Your task to perform on an android device: turn vacation reply on in the gmail app Image 0: 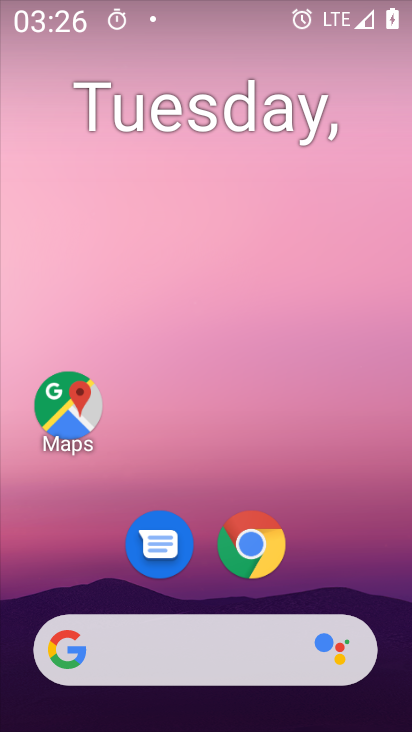
Step 0: drag from (308, 560) to (153, 55)
Your task to perform on an android device: turn vacation reply on in the gmail app Image 1: 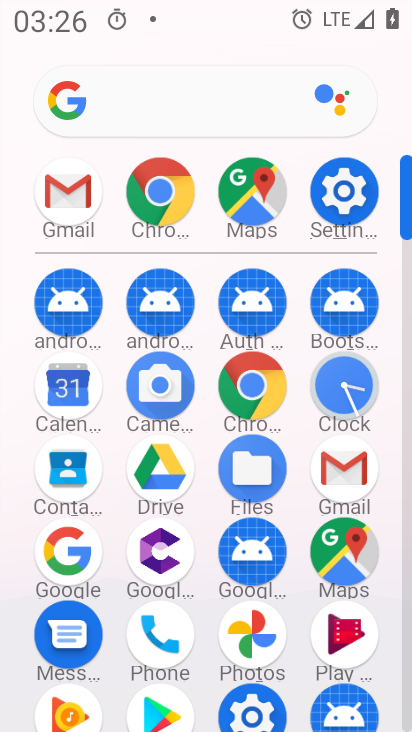
Step 1: drag from (23, 587) to (15, 277)
Your task to perform on an android device: turn vacation reply on in the gmail app Image 2: 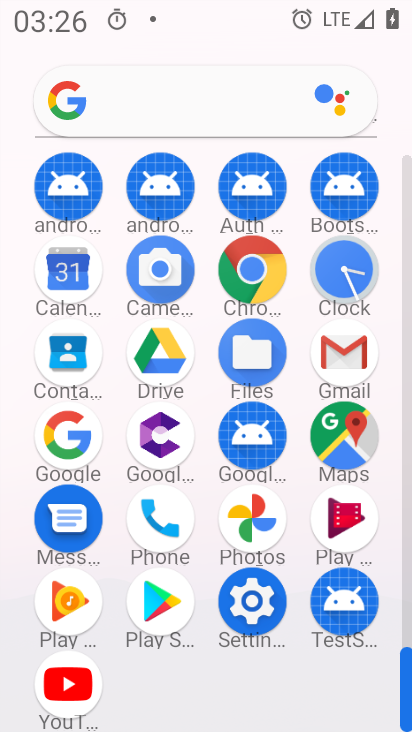
Step 2: click (341, 346)
Your task to perform on an android device: turn vacation reply on in the gmail app Image 3: 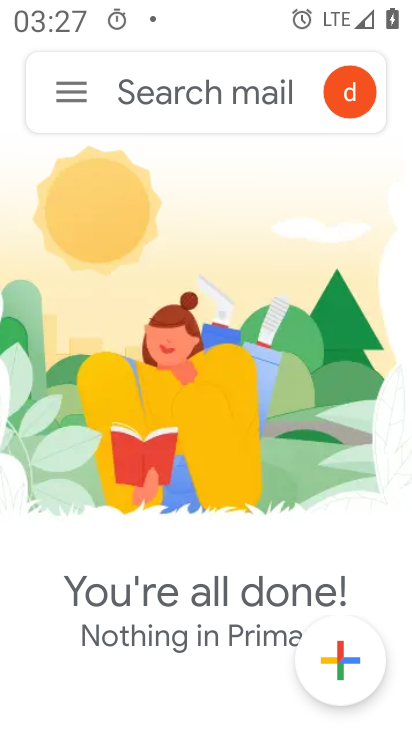
Step 3: click (70, 92)
Your task to perform on an android device: turn vacation reply on in the gmail app Image 4: 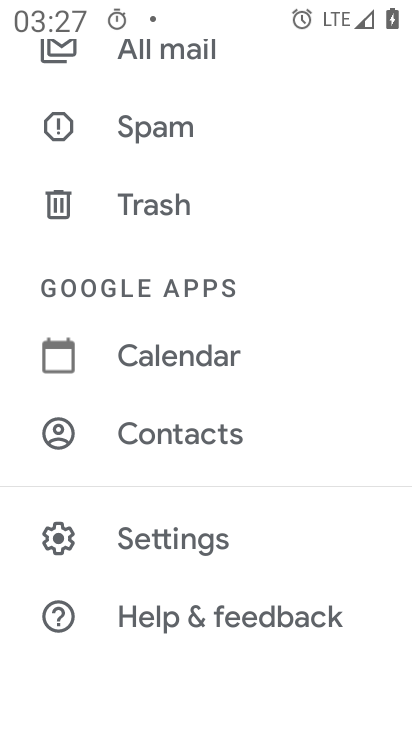
Step 4: click (211, 531)
Your task to perform on an android device: turn vacation reply on in the gmail app Image 5: 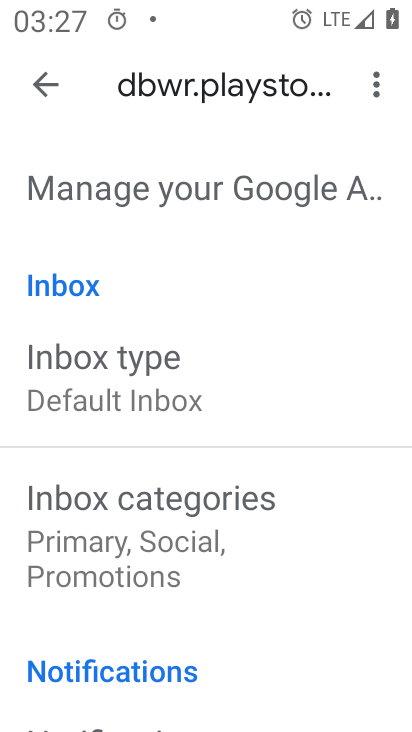
Step 5: drag from (292, 585) to (263, 191)
Your task to perform on an android device: turn vacation reply on in the gmail app Image 6: 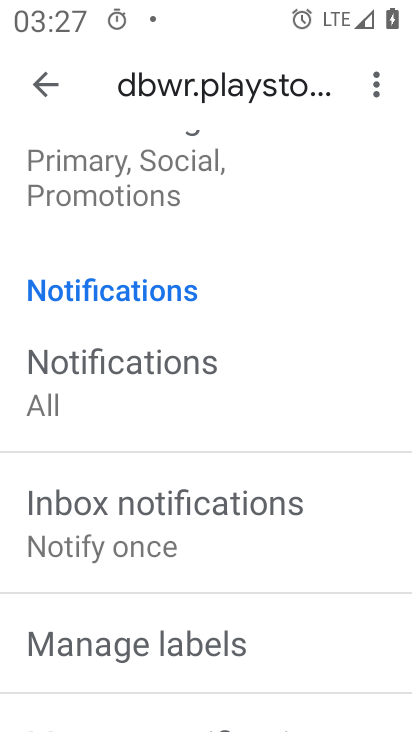
Step 6: drag from (223, 582) to (215, 182)
Your task to perform on an android device: turn vacation reply on in the gmail app Image 7: 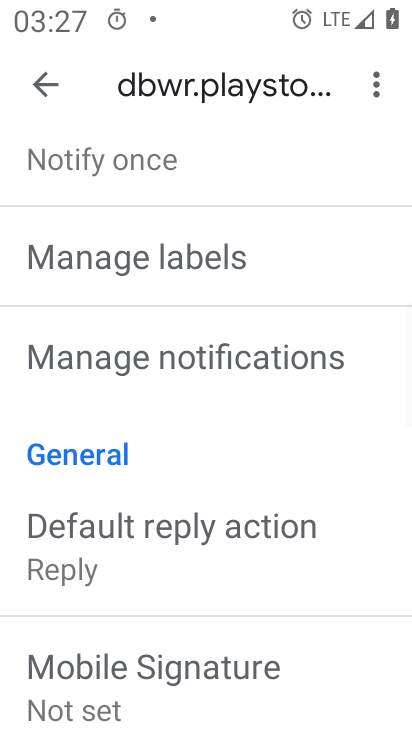
Step 7: drag from (222, 604) to (219, 172)
Your task to perform on an android device: turn vacation reply on in the gmail app Image 8: 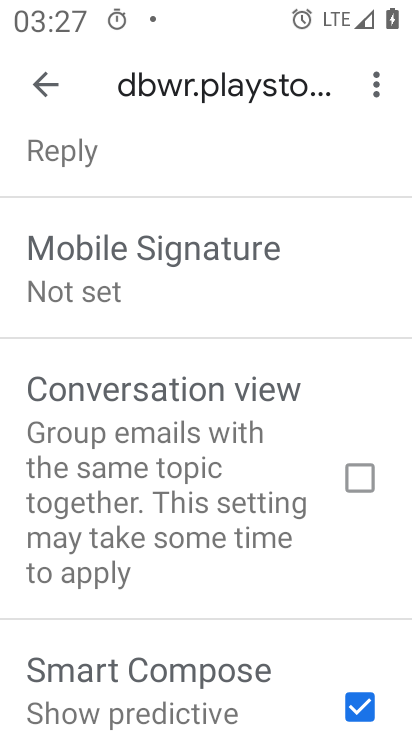
Step 8: drag from (215, 609) to (204, 211)
Your task to perform on an android device: turn vacation reply on in the gmail app Image 9: 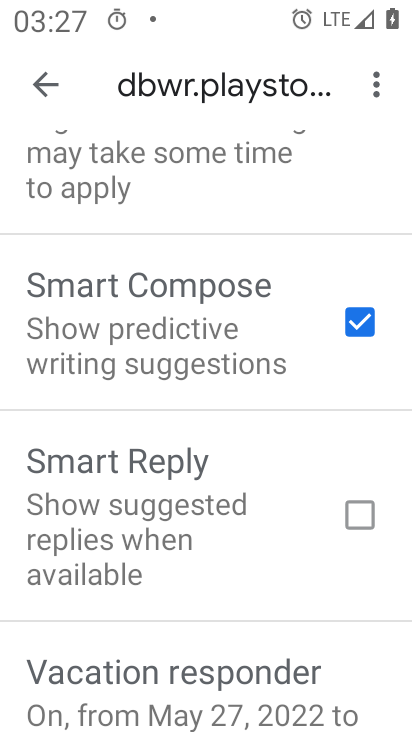
Step 9: drag from (200, 610) to (213, 219)
Your task to perform on an android device: turn vacation reply on in the gmail app Image 10: 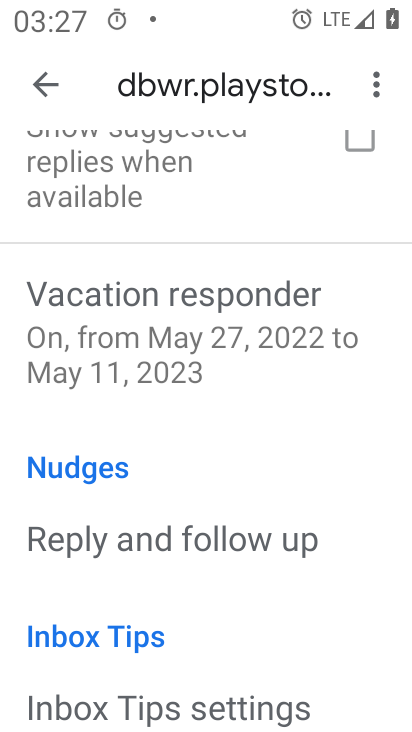
Step 10: click (221, 317)
Your task to perform on an android device: turn vacation reply on in the gmail app Image 11: 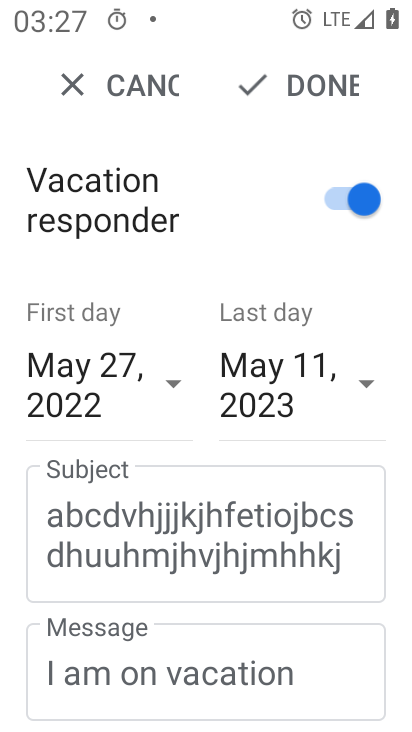
Step 11: click (284, 85)
Your task to perform on an android device: turn vacation reply on in the gmail app Image 12: 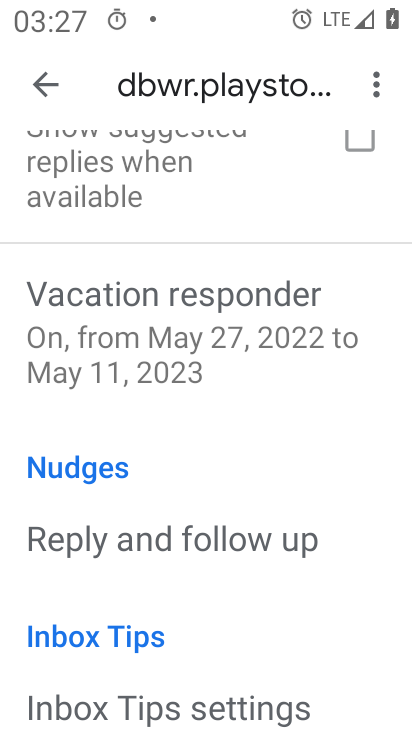
Step 12: task complete